Your task to perform on an android device: When is my next meeting? Image 0: 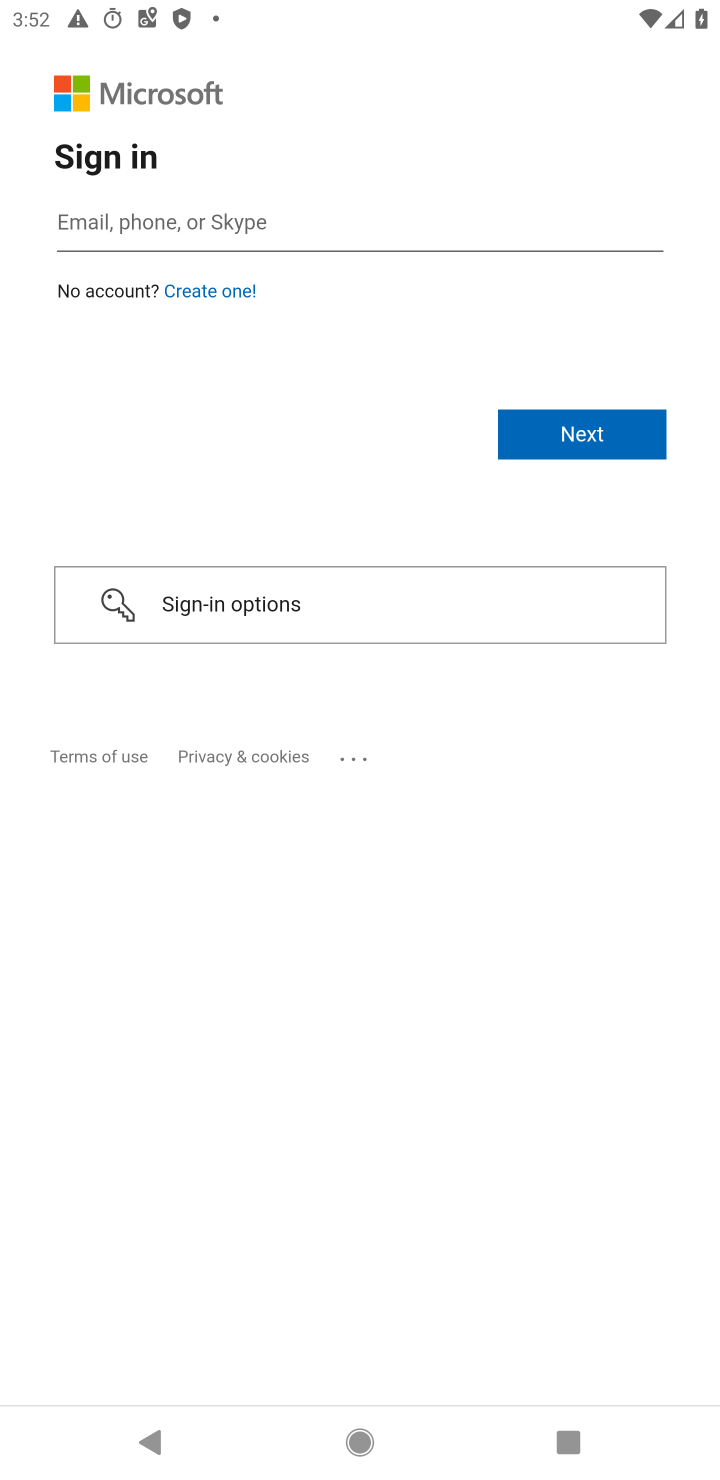
Step 0: press home button
Your task to perform on an android device: When is my next meeting? Image 1: 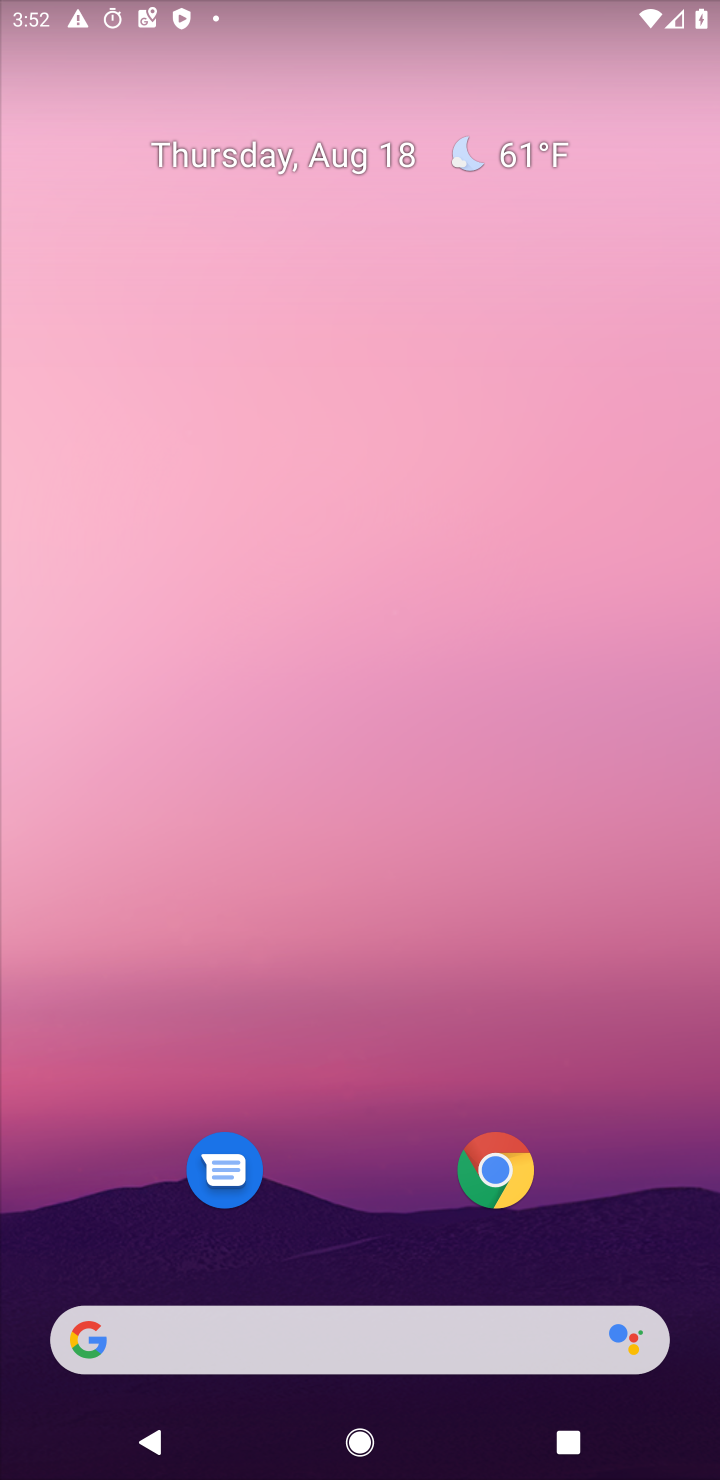
Step 1: task complete